Your task to perform on an android device: toggle improve location accuracy Image 0: 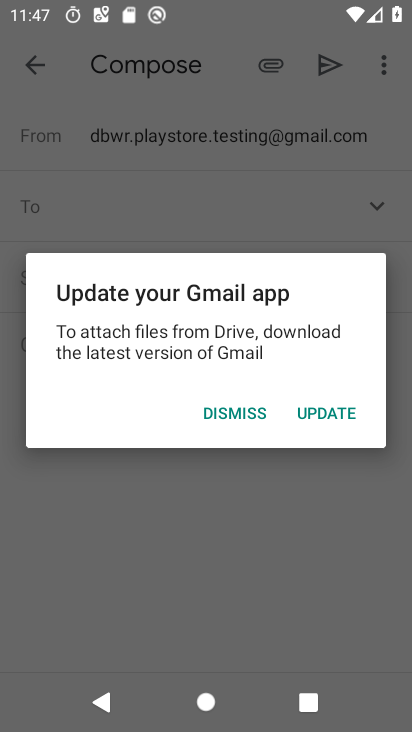
Step 0: press home button
Your task to perform on an android device: toggle improve location accuracy Image 1: 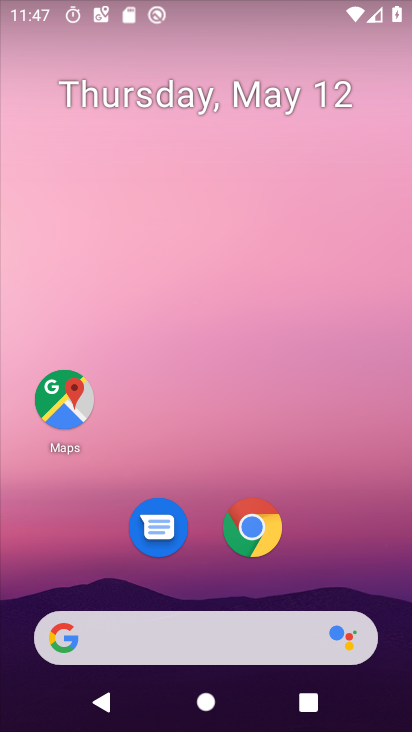
Step 1: drag from (315, 563) to (211, 223)
Your task to perform on an android device: toggle improve location accuracy Image 2: 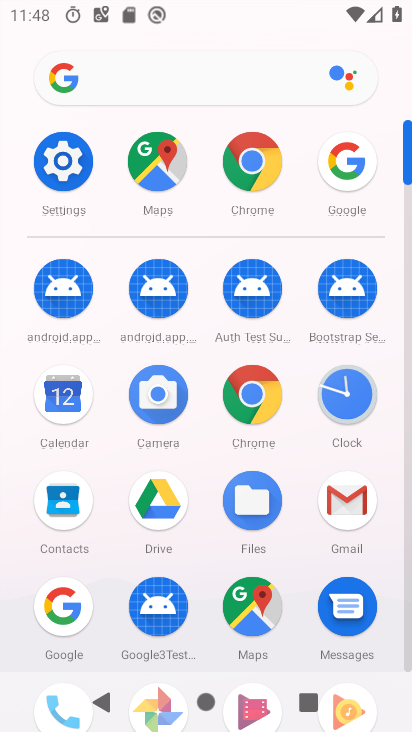
Step 2: drag from (295, 631) to (371, 258)
Your task to perform on an android device: toggle improve location accuracy Image 3: 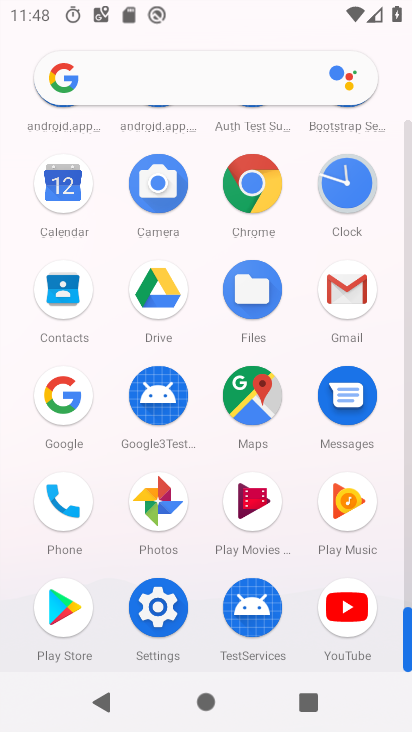
Step 3: click (173, 615)
Your task to perform on an android device: toggle improve location accuracy Image 4: 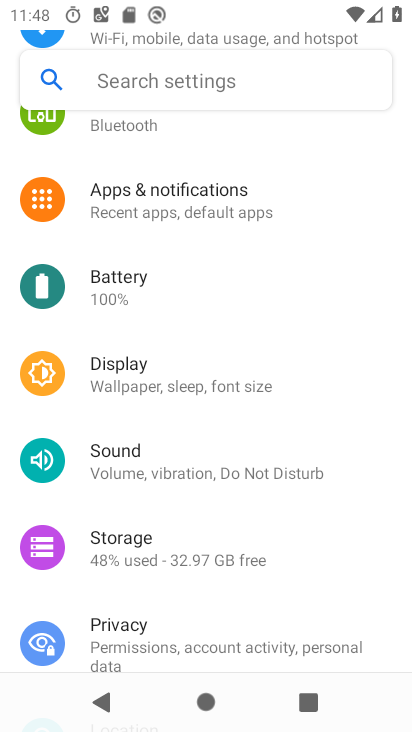
Step 4: drag from (121, 600) to (161, 283)
Your task to perform on an android device: toggle improve location accuracy Image 5: 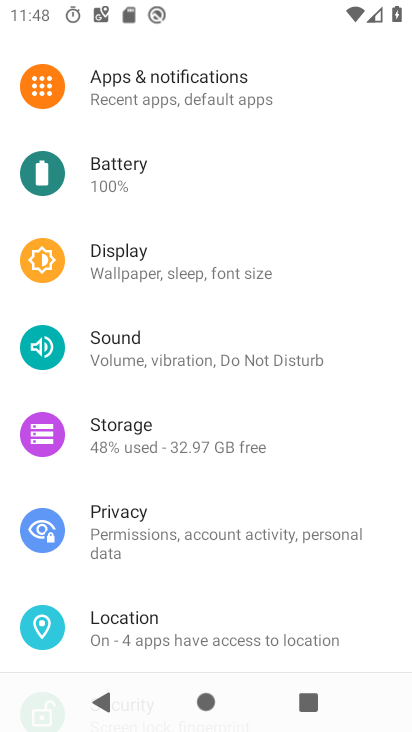
Step 5: click (120, 612)
Your task to perform on an android device: toggle improve location accuracy Image 6: 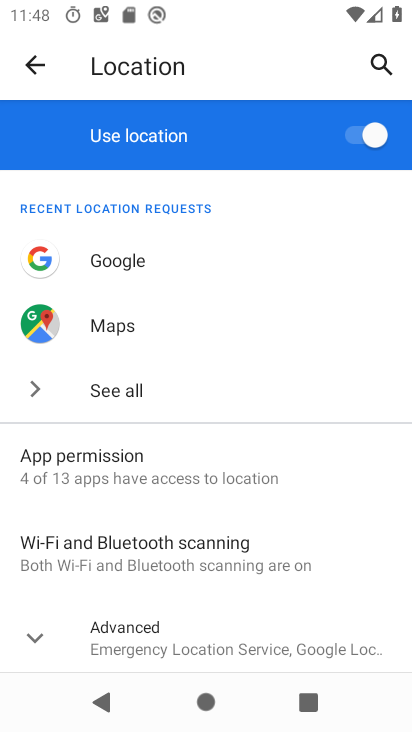
Step 6: drag from (78, 608) to (132, 328)
Your task to perform on an android device: toggle improve location accuracy Image 7: 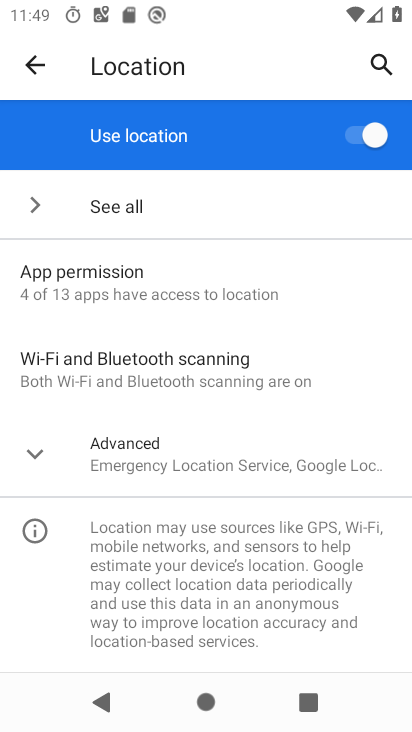
Step 7: click (111, 455)
Your task to perform on an android device: toggle improve location accuracy Image 8: 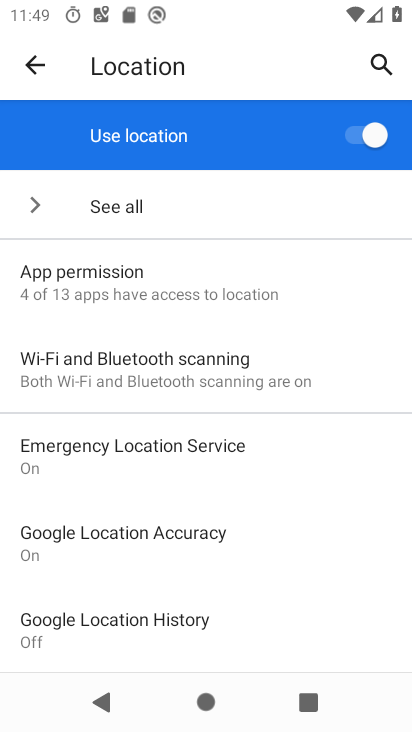
Step 8: drag from (75, 606) to (75, 403)
Your task to perform on an android device: toggle improve location accuracy Image 9: 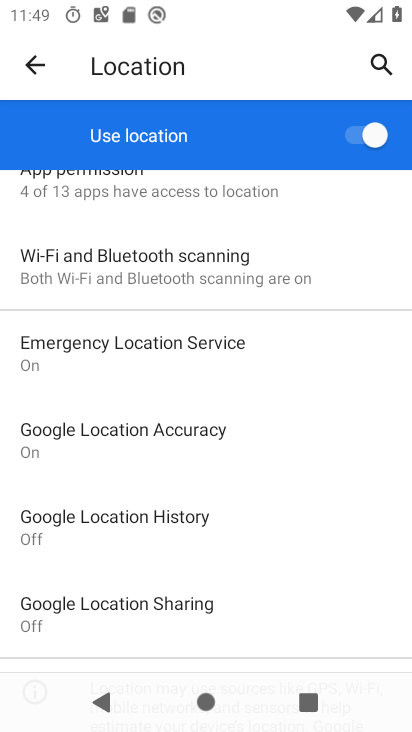
Step 9: click (173, 433)
Your task to perform on an android device: toggle improve location accuracy Image 10: 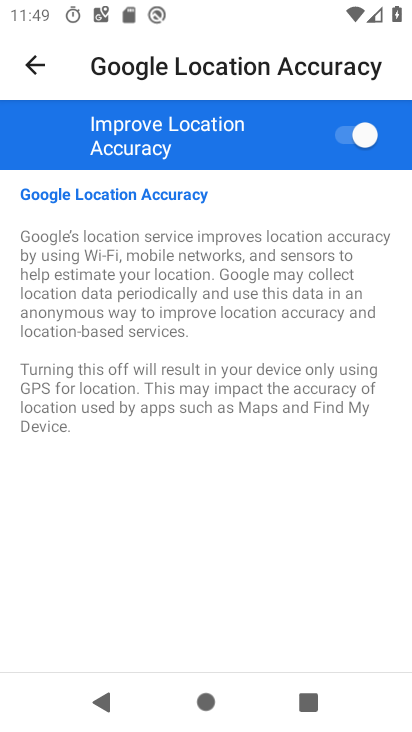
Step 10: click (341, 144)
Your task to perform on an android device: toggle improve location accuracy Image 11: 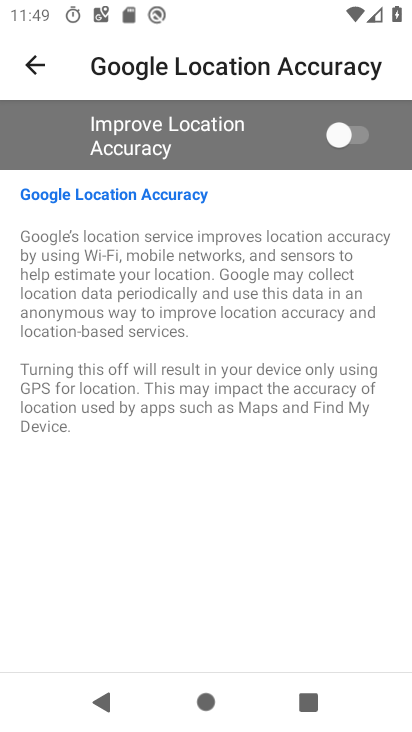
Step 11: task complete